Your task to perform on an android device: Open battery settings Image 0: 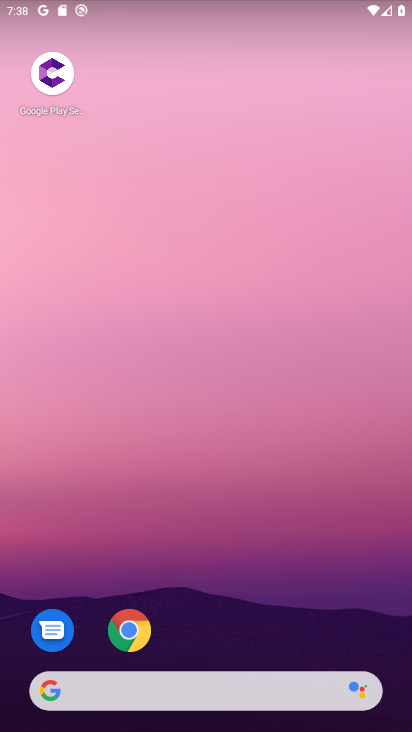
Step 0: drag from (212, 521) to (407, 336)
Your task to perform on an android device: Open battery settings Image 1: 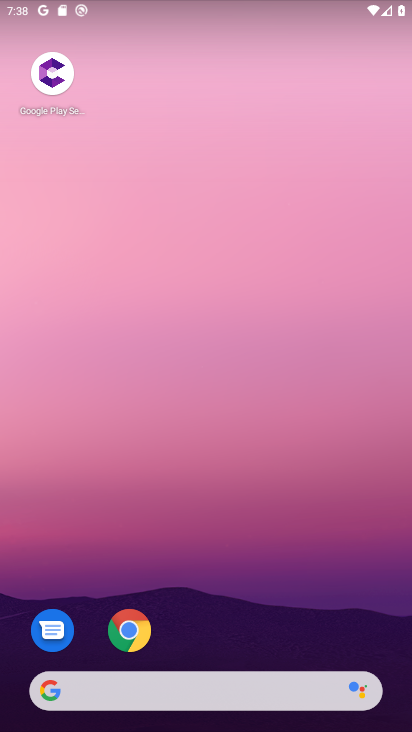
Step 1: drag from (223, 663) to (389, 0)
Your task to perform on an android device: Open battery settings Image 2: 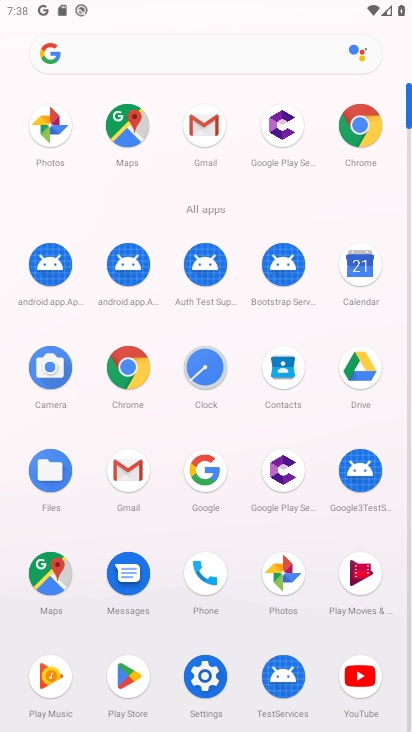
Step 2: click (207, 675)
Your task to perform on an android device: Open battery settings Image 3: 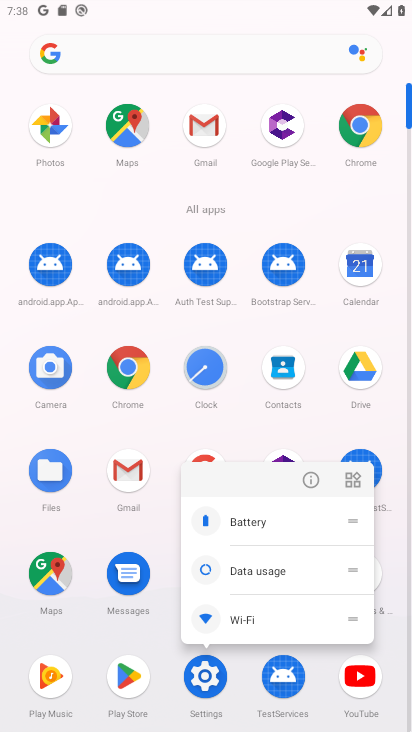
Step 3: click (204, 687)
Your task to perform on an android device: Open battery settings Image 4: 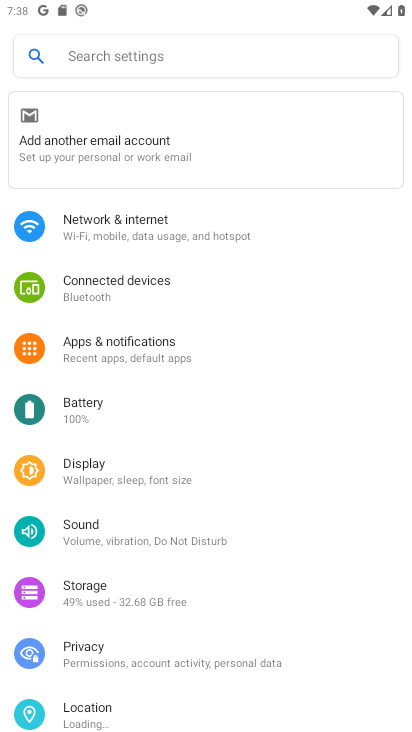
Step 4: click (66, 417)
Your task to perform on an android device: Open battery settings Image 5: 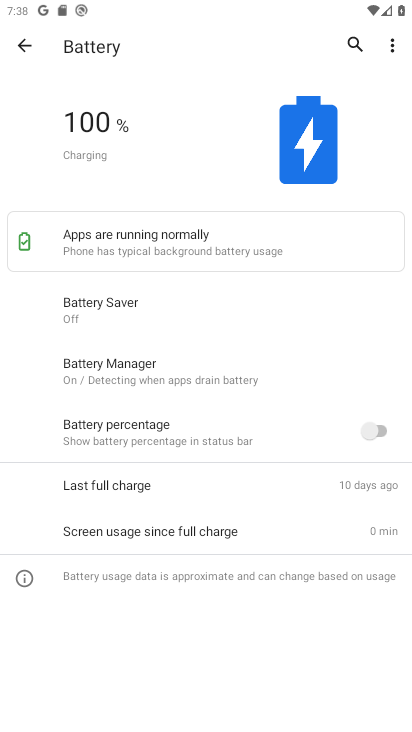
Step 5: task complete